Your task to perform on an android device: Go to Yahoo.com Image 0: 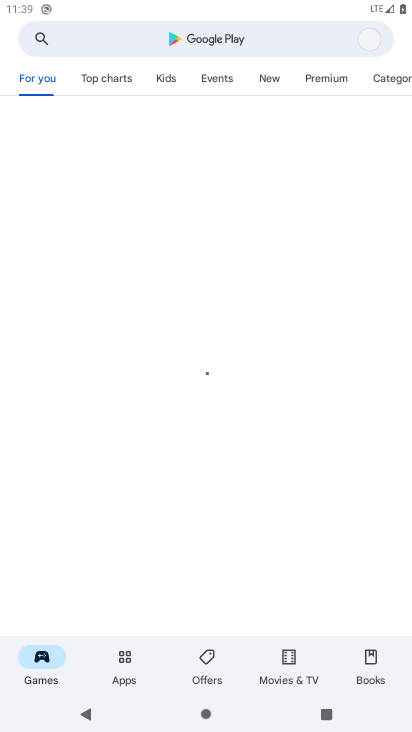
Step 0: press home button
Your task to perform on an android device: Go to Yahoo.com Image 1: 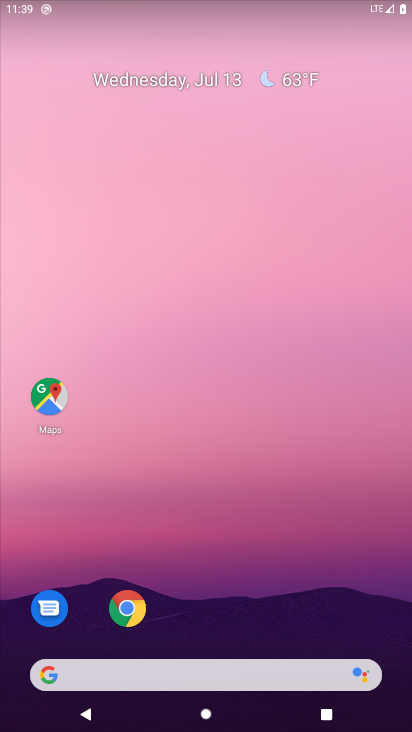
Step 1: click (122, 612)
Your task to perform on an android device: Go to Yahoo.com Image 2: 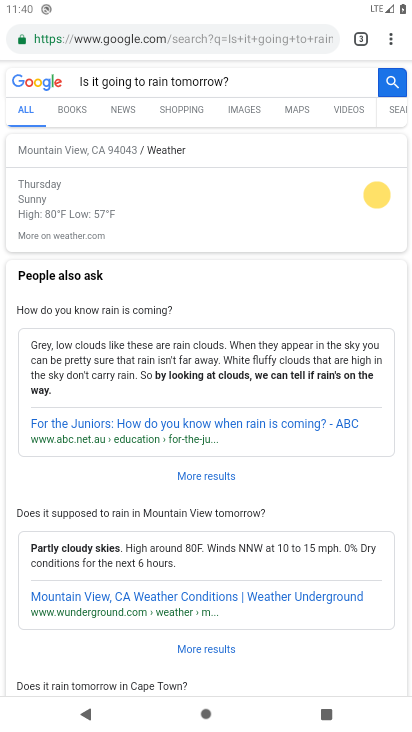
Step 2: click (262, 48)
Your task to perform on an android device: Go to Yahoo.com Image 3: 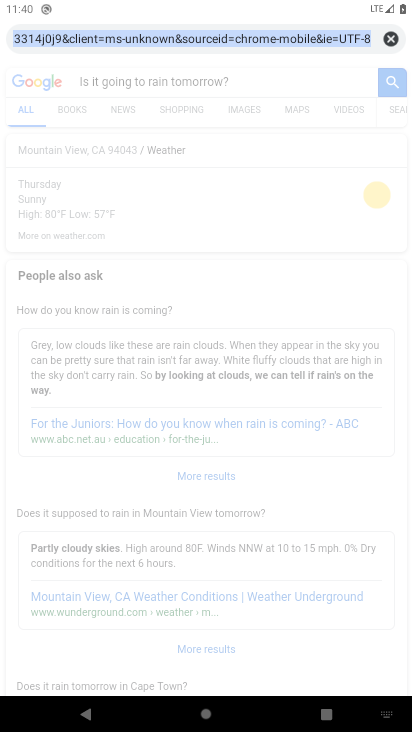
Step 3: type "Yahoo.com"
Your task to perform on an android device: Go to Yahoo.com Image 4: 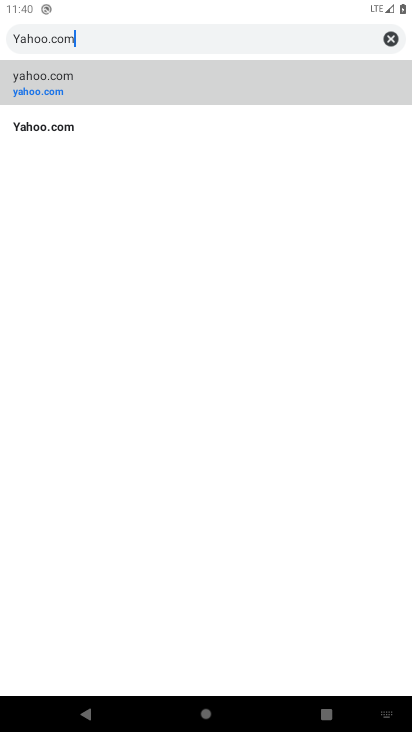
Step 4: type ""
Your task to perform on an android device: Go to Yahoo.com Image 5: 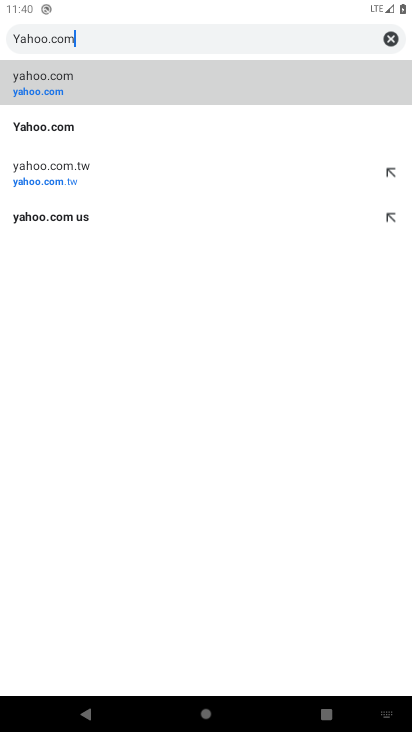
Step 5: click (67, 76)
Your task to perform on an android device: Go to Yahoo.com Image 6: 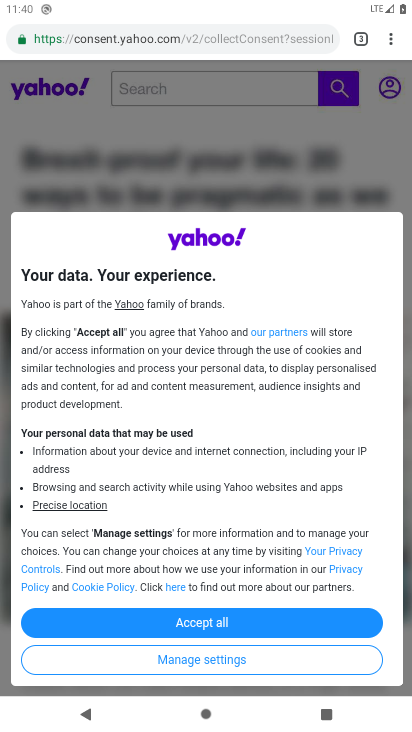
Step 6: task complete